Your task to perform on an android device: Turn on the flashlight Image 0: 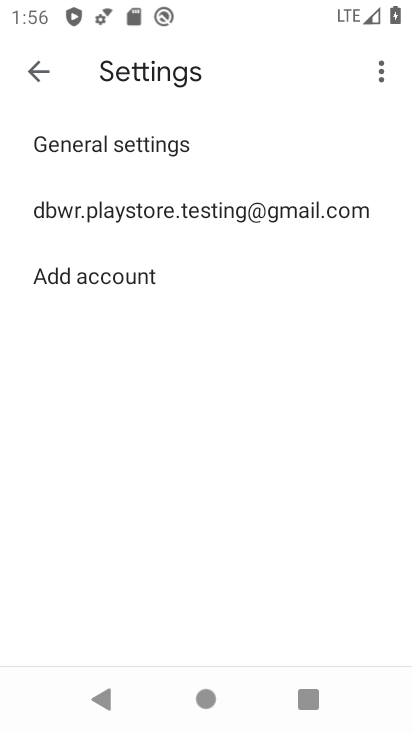
Step 0: drag from (340, 5) to (263, 439)
Your task to perform on an android device: Turn on the flashlight Image 1: 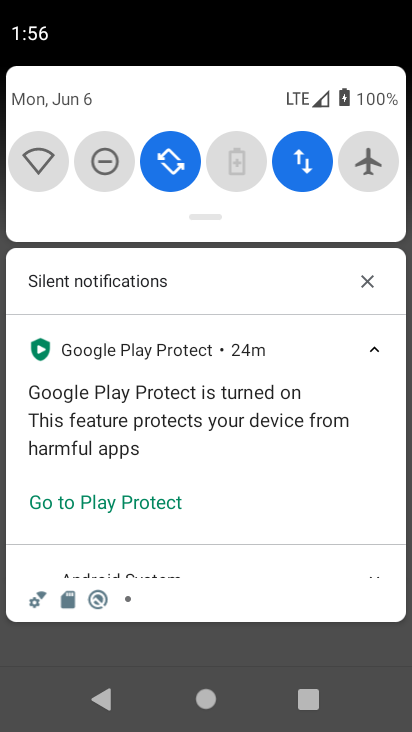
Step 1: drag from (206, 197) to (207, 555)
Your task to perform on an android device: Turn on the flashlight Image 2: 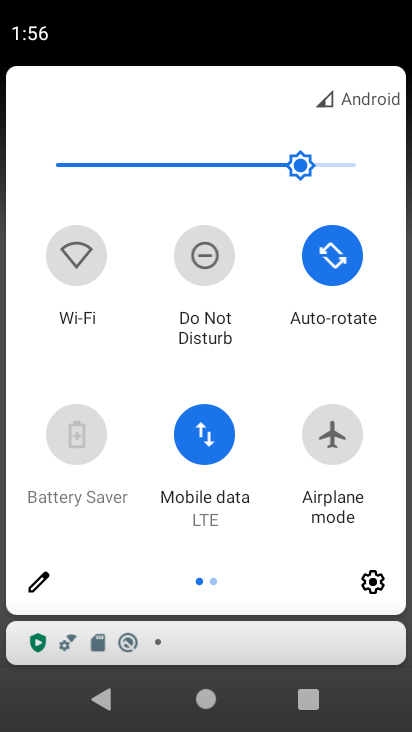
Step 2: drag from (294, 539) to (0, 536)
Your task to perform on an android device: Turn on the flashlight Image 3: 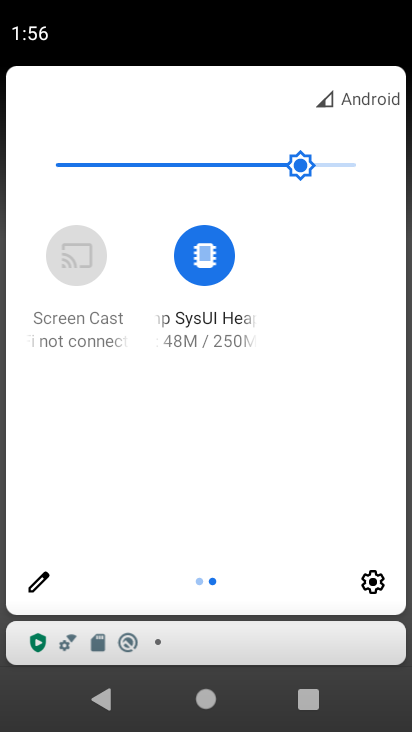
Step 3: click (35, 581)
Your task to perform on an android device: Turn on the flashlight Image 4: 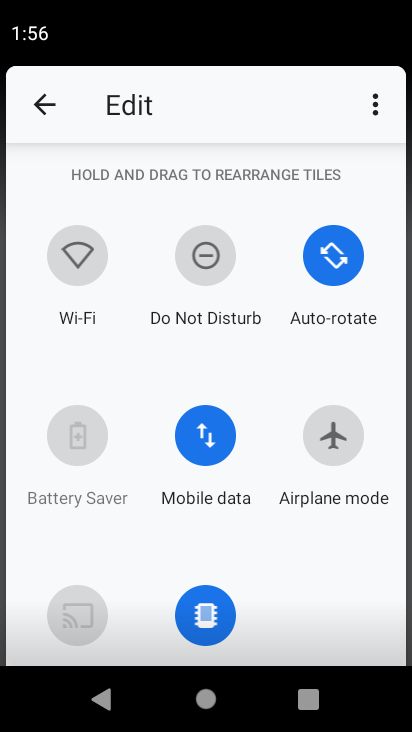
Step 4: task complete